Your task to perform on an android device: Search for sushi restaurants on Maps Image 0: 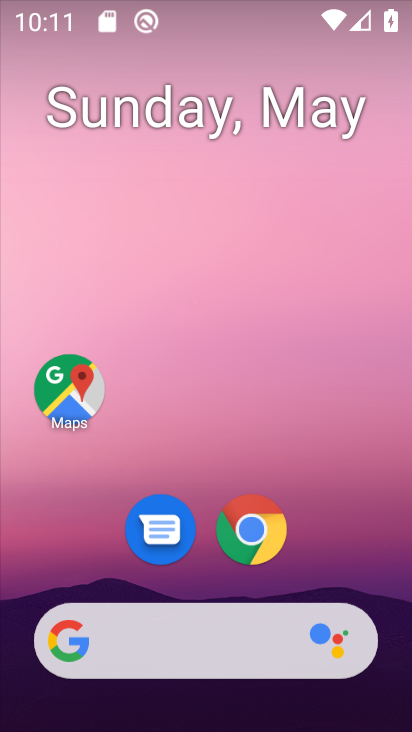
Step 0: drag from (159, 628) to (170, 131)
Your task to perform on an android device: Search for sushi restaurants on Maps Image 1: 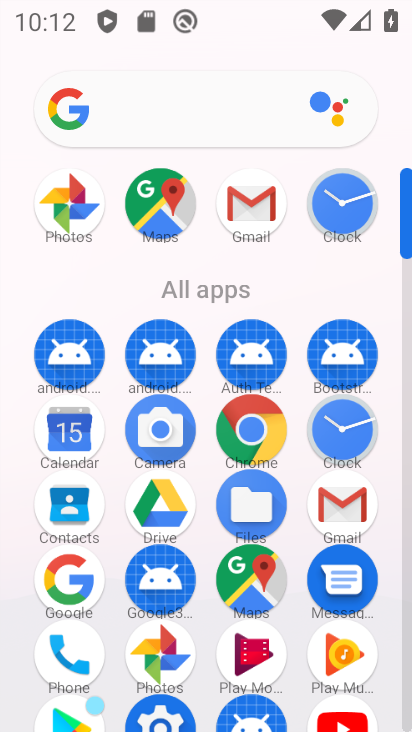
Step 1: click (180, 228)
Your task to perform on an android device: Search for sushi restaurants on Maps Image 2: 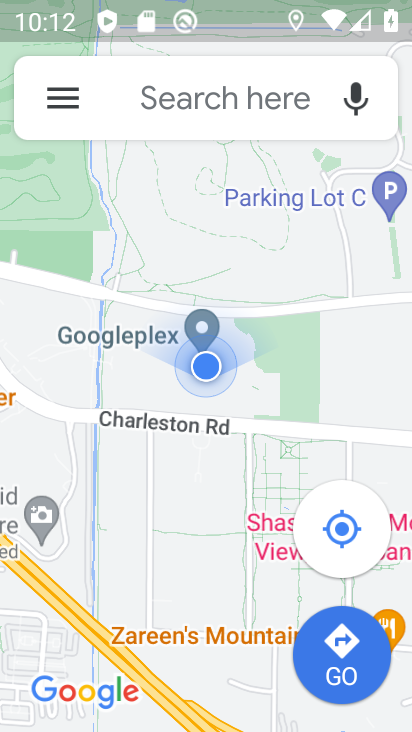
Step 2: click (202, 109)
Your task to perform on an android device: Search for sushi restaurants on Maps Image 3: 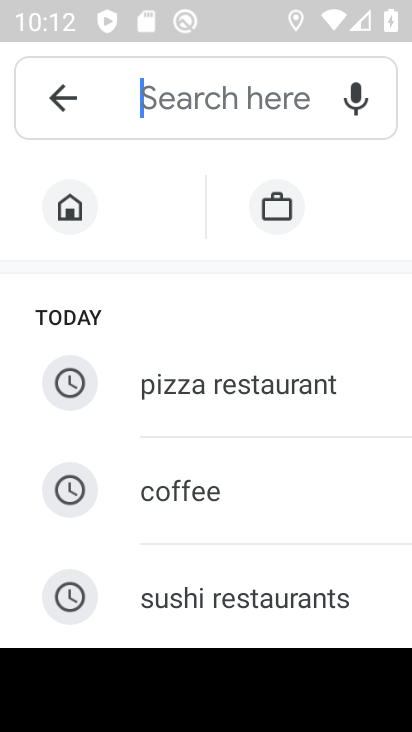
Step 3: type "sushi "
Your task to perform on an android device: Search for sushi restaurants on Maps Image 4: 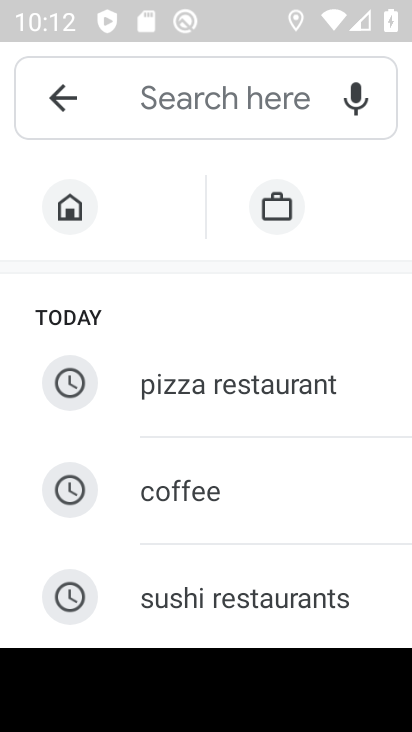
Step 4: click (224, 596)
Your task to perform on an android device: Search for sushi restaurants on Maps Image 5: 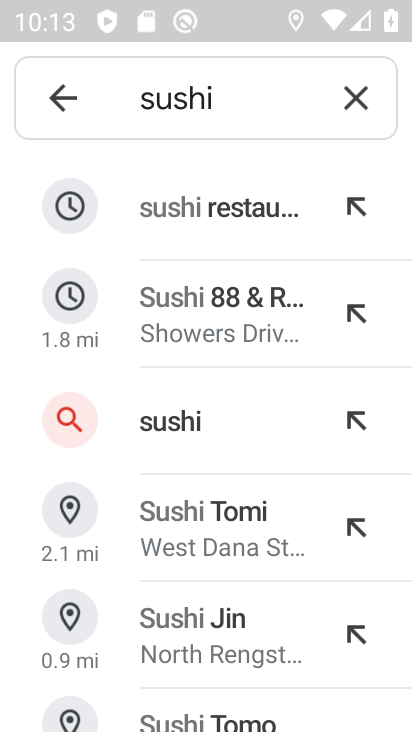
Step 5: click (209, 219)
Your task to perform on an android device: Search for sushi restaurants on Maps Image 6: 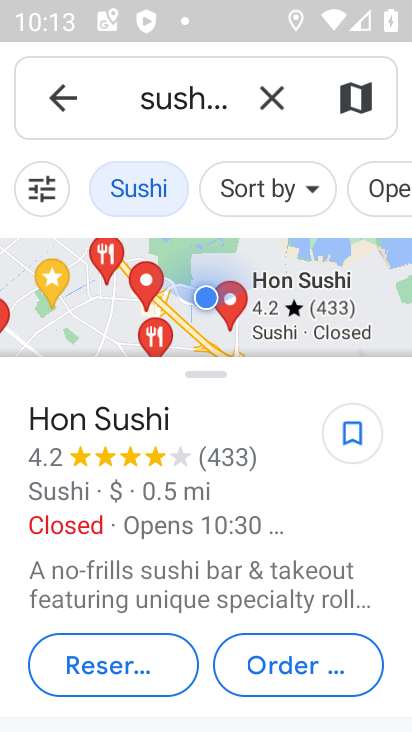
Step 6: task complete